Your task to perform on an android device: Open the stopwatch Image 0: 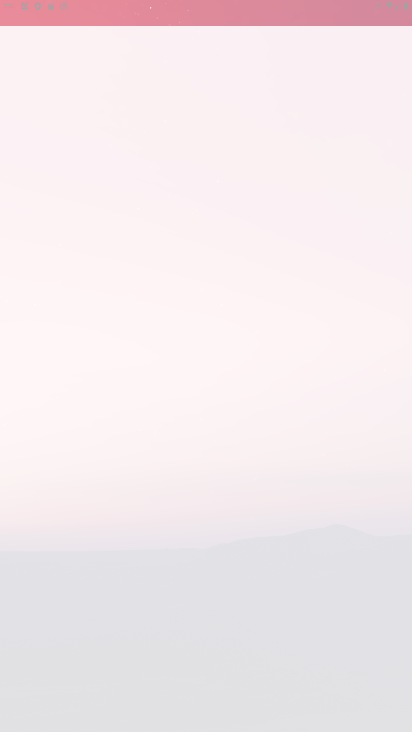
Step 0: press home button
Your task to perform on an android device: Open the stopwatch Image 1: 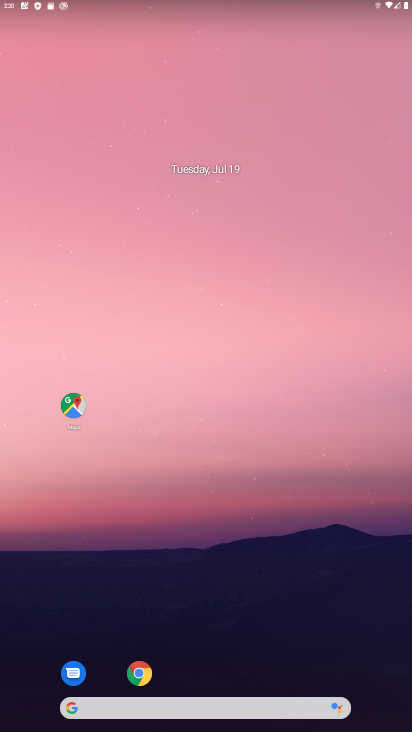
Step 1: drag from (222, 656) to (227, 308)
Your task to perform on an android device: Open the stopwatch Image 2: 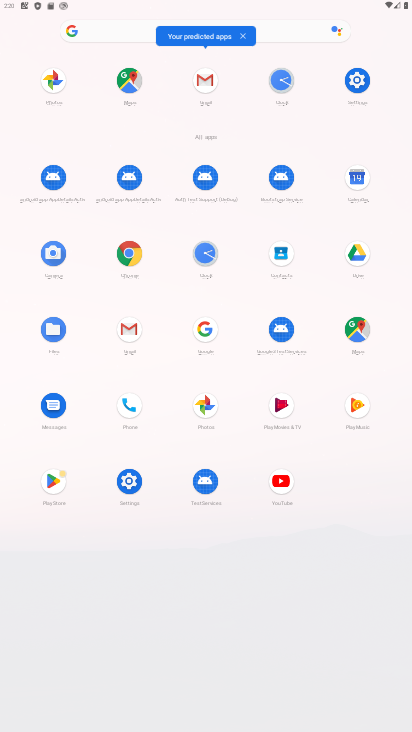
Step 2: click (201, 253)
Your task to perform on an android device: Open the stopwatch Image 3: 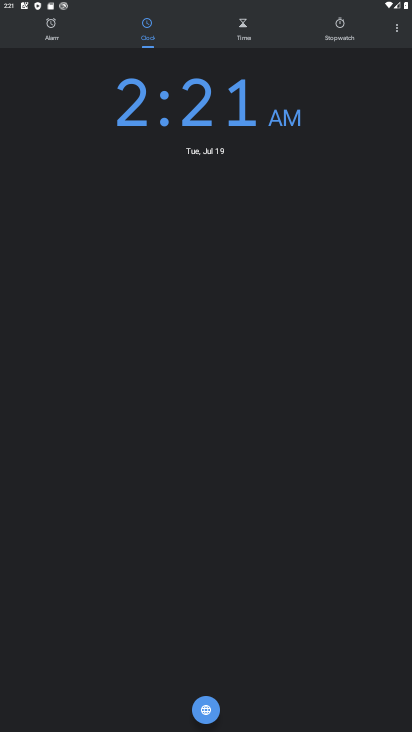
Step 3: click (344, 43)
Your task to perform on an android device: Open the stopwatch Image 4: 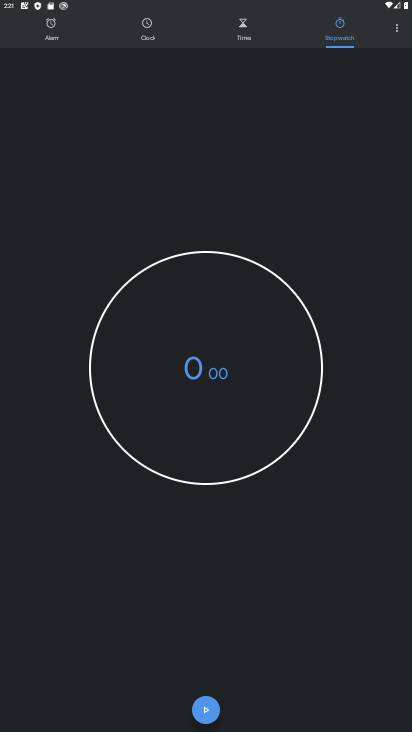
Step 4: click (207, 711)
Your task to perform on an android device: Open the stopwatch Image 5: 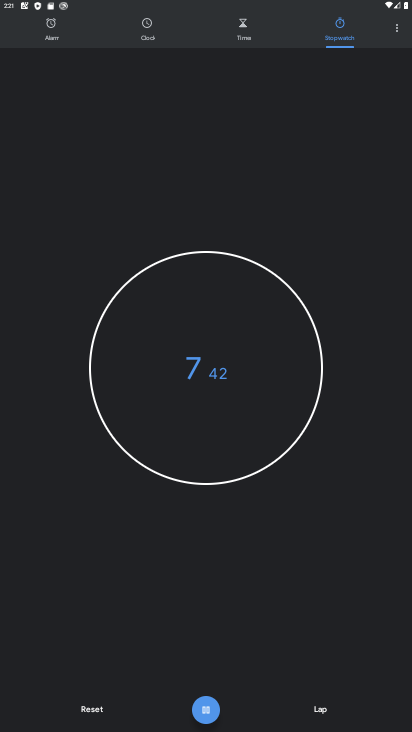
Step 5: task complete